Your task to perform on an android device: Go to Amazon Image 0: 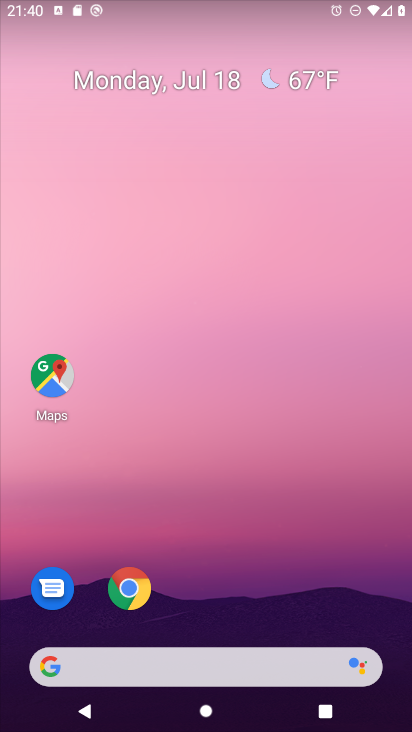
Step 0: click (133, 588)
Your task to perform on an android device: Go to Amazon Image 1: 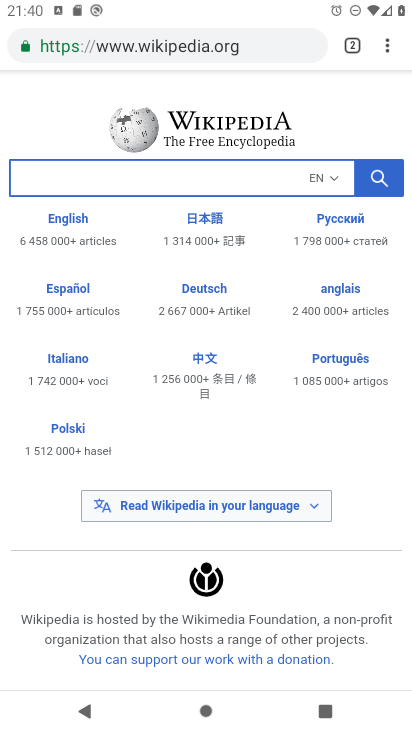
Step 1: click (303, 42)
Your task to perform on an android device: Go to Amazon Image 2: 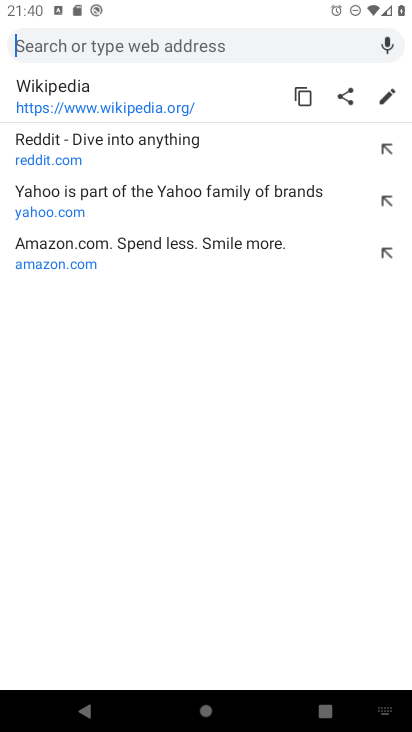
Step 2: type "amazon"
Your task to perform on an android device: Go to Amazon Image 3: 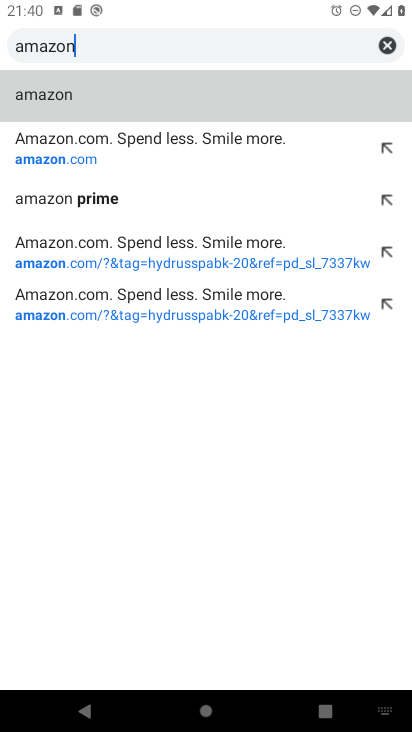
Step 3: click (76, 102)
Your task to perform on an android device: Go to Amazon Image 4: 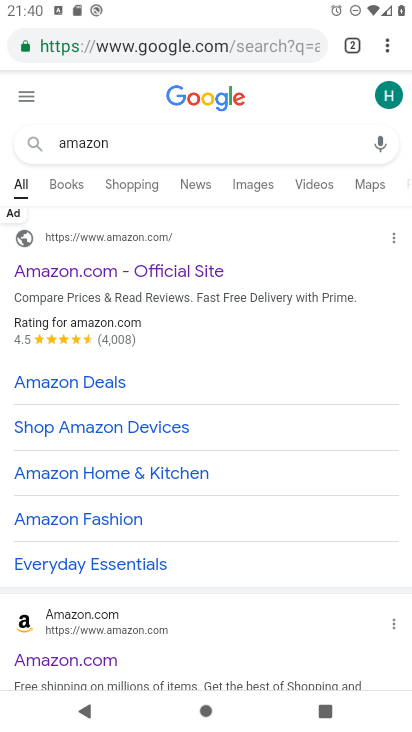
Step 4: click (89, 235)
Your task to perform on an android device: Go to Amazon Image 5: 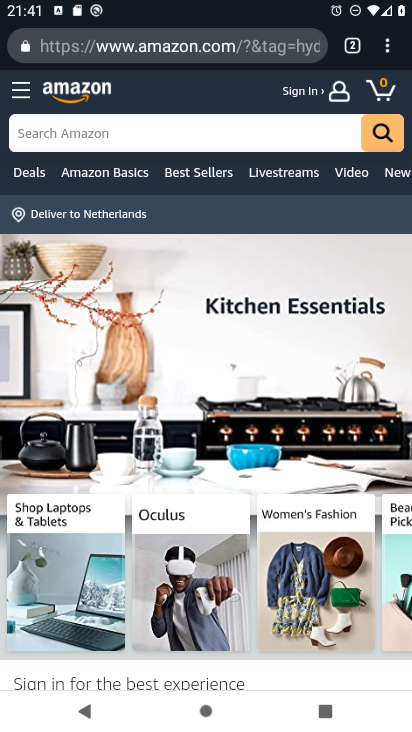
Step 5: task complete